Your task to perform on an android device: Open settings Image 0: 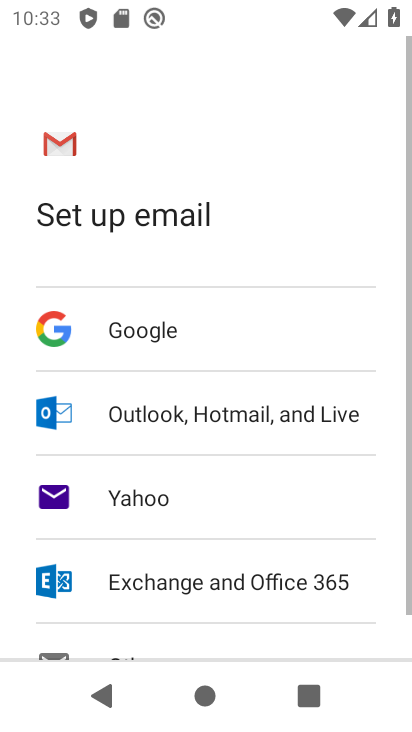
Step 0: press home button
Your task to perform on an android device: Open settings Image 1: 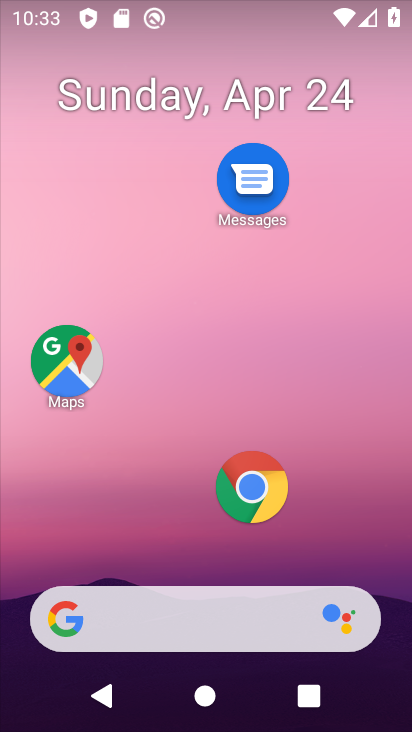
Step 1: drag from (197, 571) to (187, 7)
Your task to perform on an android device: Open settings Image 2: 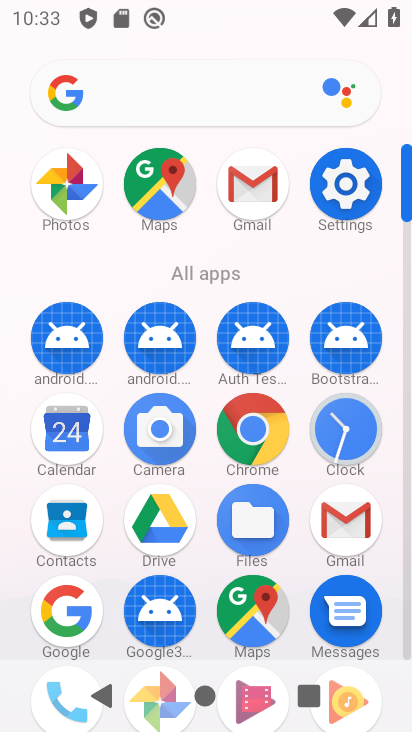
Step 2: click (381, 177)
Your task to perform on an android device: Open settings Image 3: 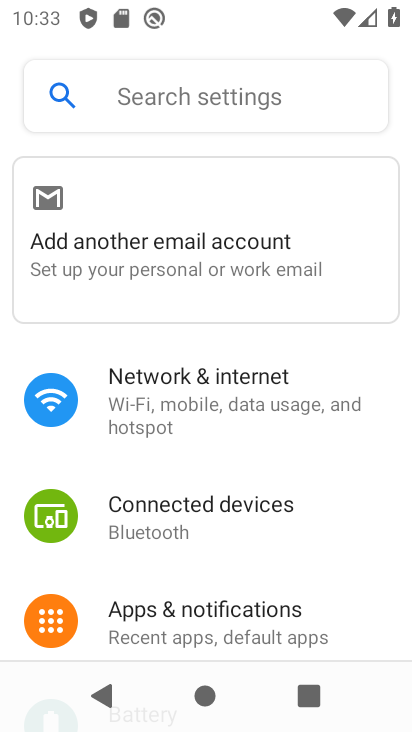
Step 3: task complete